Your task to perform on an android device: Go to Android settings Image 0: 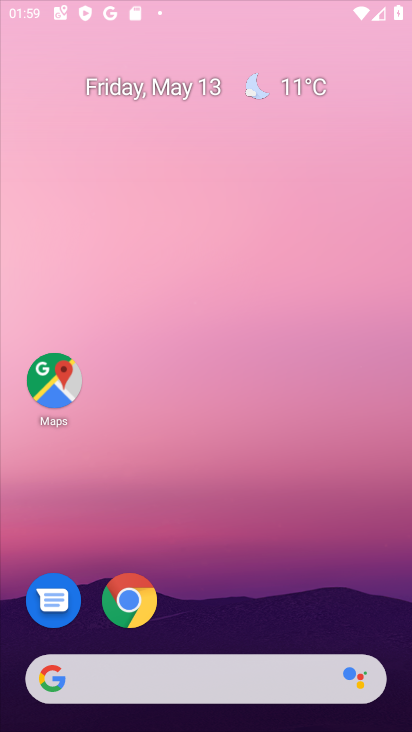
Step 0: click (340, 254)
Your task to perform on an android device: Go to Android settings Image 1: 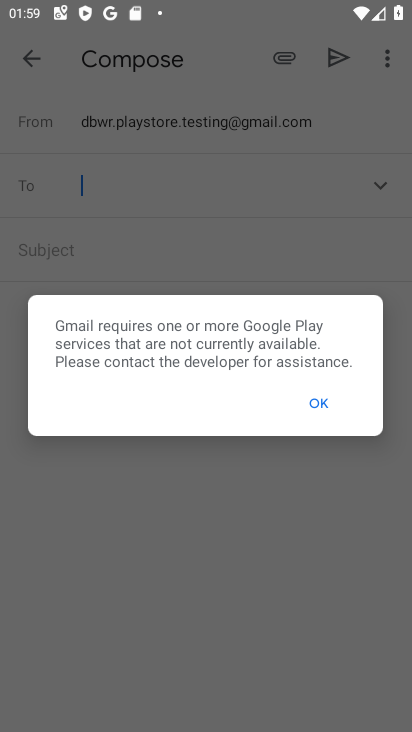
Step 1: drag from (221, 613) to (291, 188)
Your task to perform on an android device: Go to Android settings Image 2: 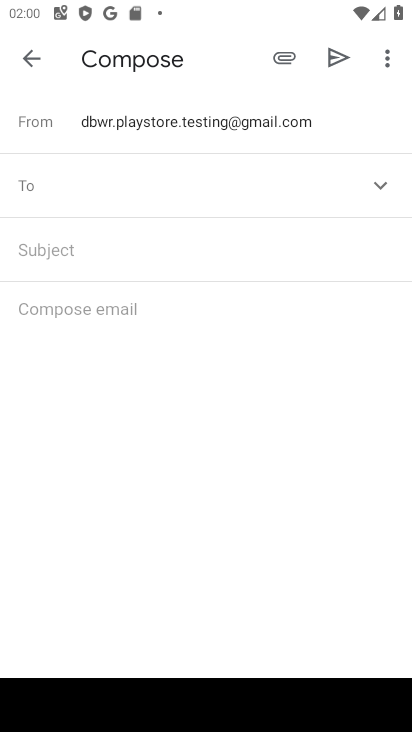
Step 2: press home button
Your task to perform on an android device: Go to Android settings Image 3: 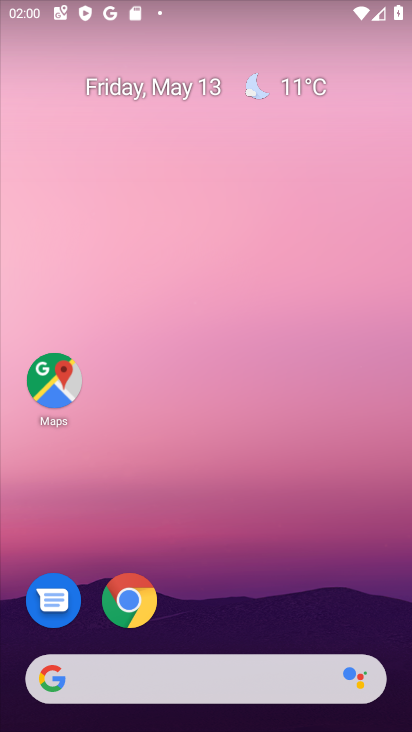
Step 3: drag from (242, 612) to (277, 188)
Your task to perform on an android device: Go to Android settings Image 4: 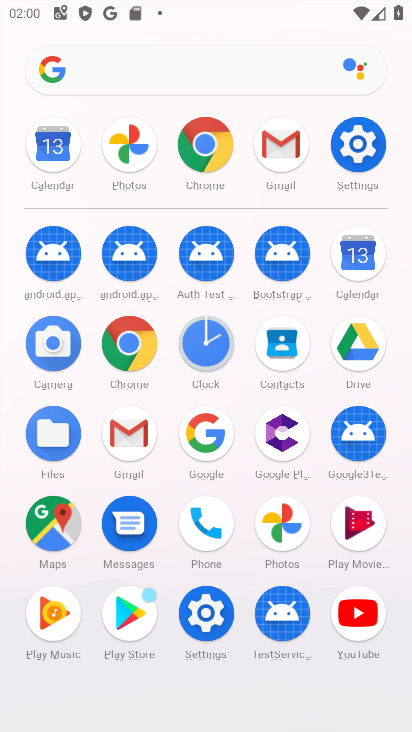
Step 4: click (361, 158)
Your task to perform on an android device: Go to Android settings Image 5: 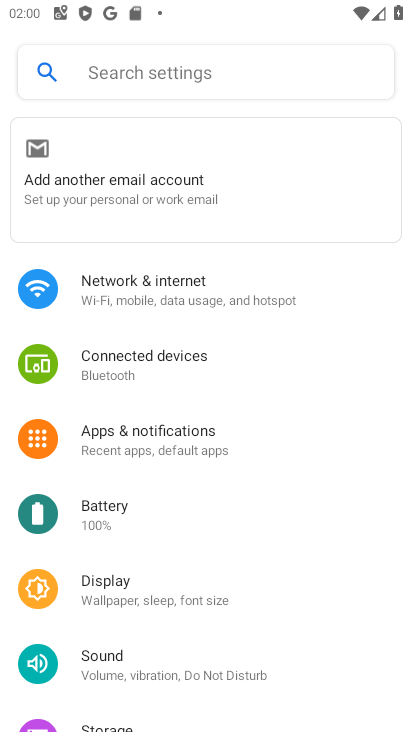
Step 5: drag from (200, 548) to (224, 185)
Your task to perform on an android device: Go to Android settings Image 6: 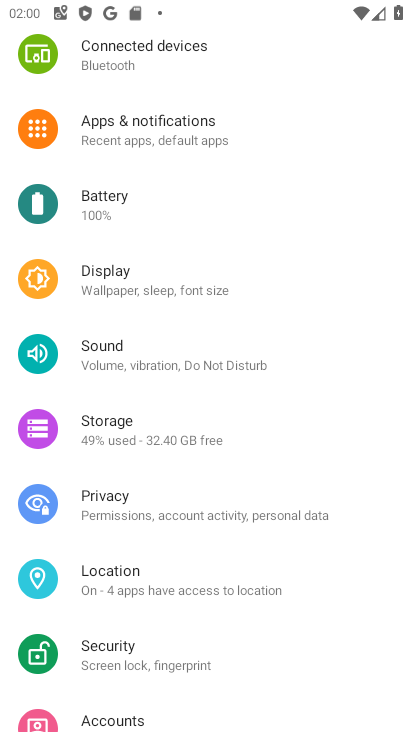
Step 6: drag from (198, 562) to (238, 132)
Your task to perform on an android device: Go to Android settings Image 7: 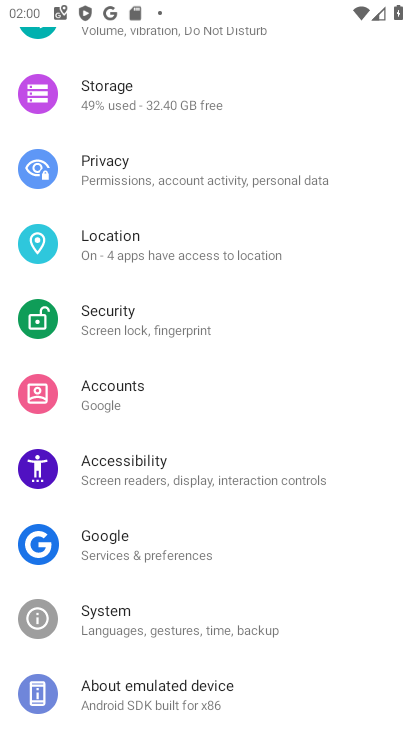
Step 7: click (152, 693)
Your task to perform on an android device: Go to Android settings Image 8: 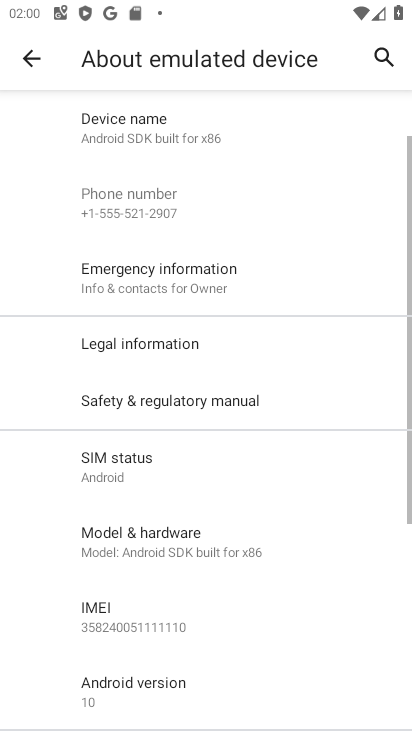
Step 8: drag from (185, 298) to (260, 623)
Your task to perform on an android device: Go to Android settings Image 9: 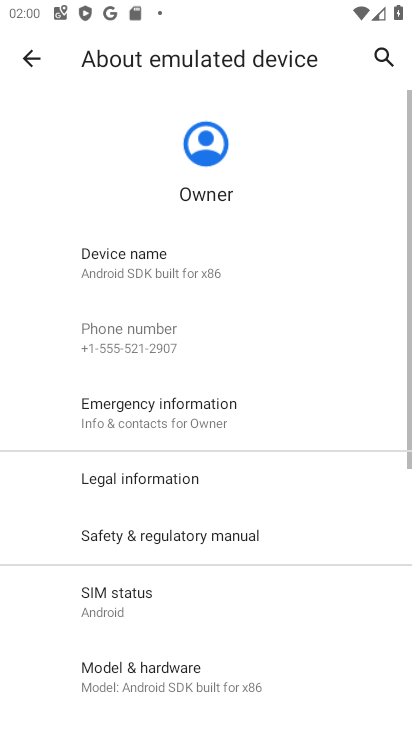
Step 9: drag from (228, 626) to (326, 209)
Your task to perform on an android device: Go to Android settings Image 10: 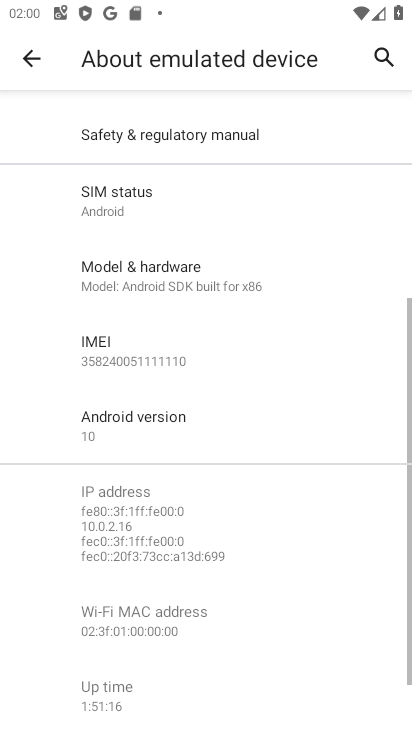
Step 10: click (177, 435)
Your task to perform on an android device: Go to Android settings Image 11: 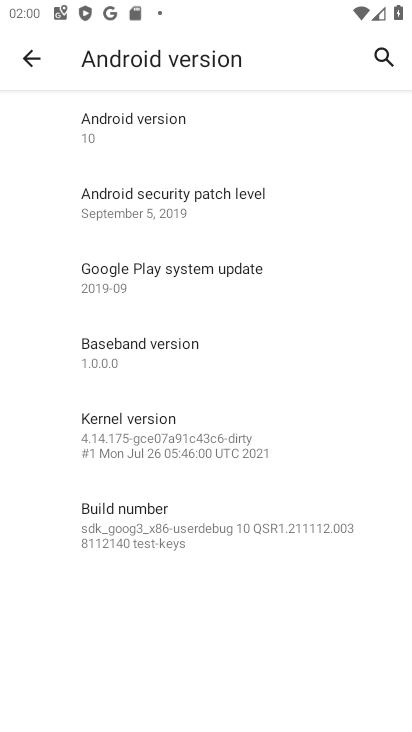
Step 11: task complete